Your task to perform on an android device: change notifications settings Image 0: 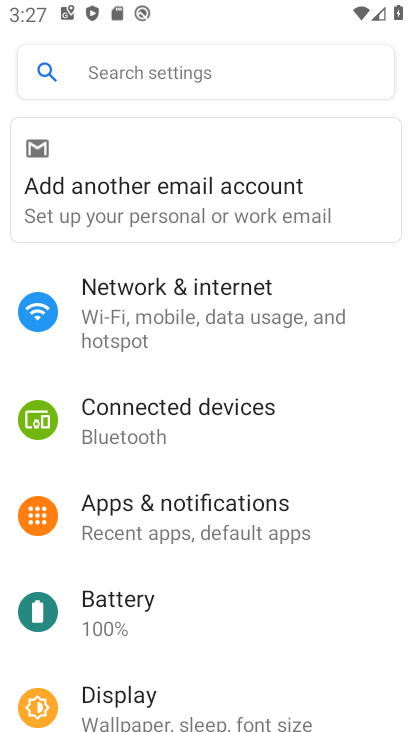
Step 0: click (251, 501)
Your task to perform on an android device: change notifications settings Image 1: 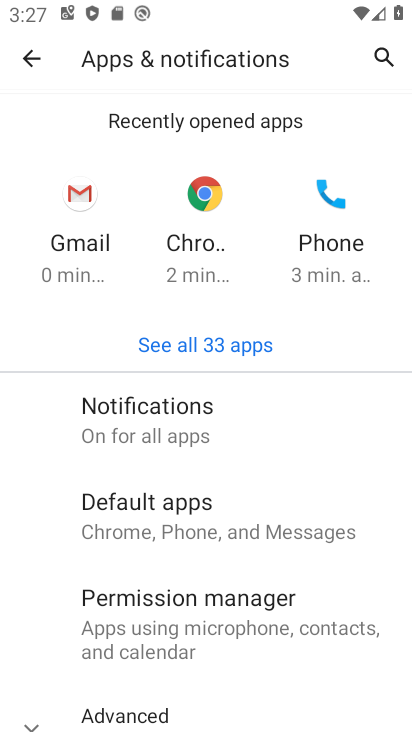
Step 1: drag from (302, 540) to (275, 174)
Your task to perform on an android device: change notifications settings Image 2: 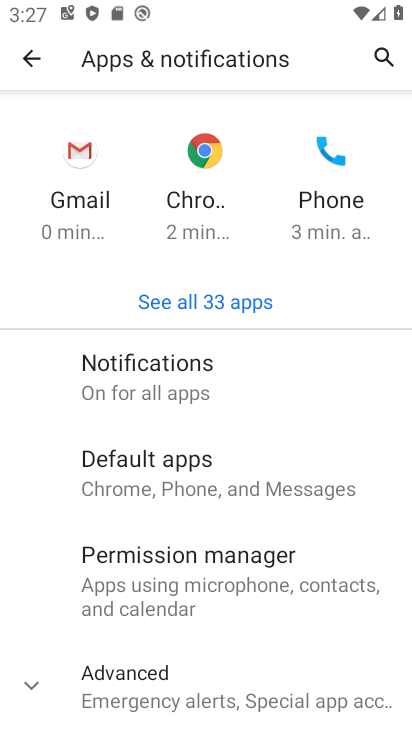
Step 2: click (33, 685)
Your task to perform on an android device: change notifications settings Image 3: 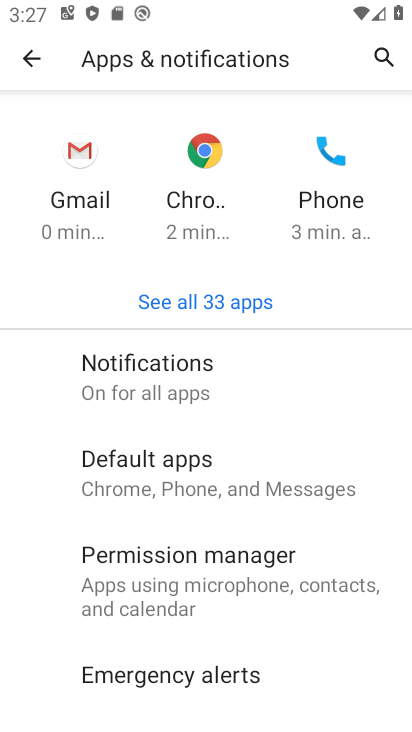
Step 3: drag from (38, 537) to (48, 239)
Your task to perform on an android device: change notifications settings Image 4: 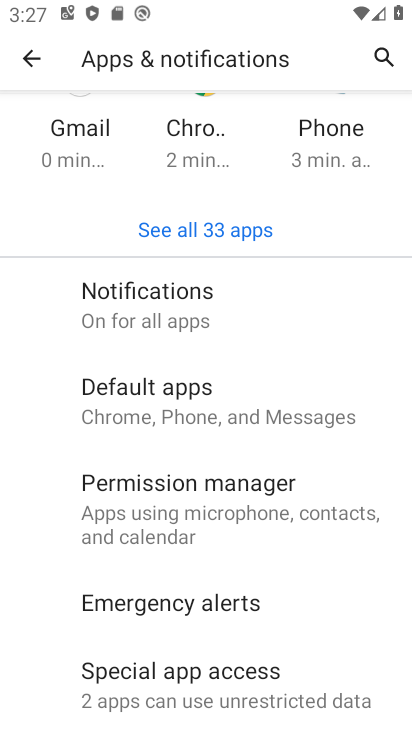
Step 4: click (194, 288)
Your task to perform on an android device: change notifications settings Image 5: 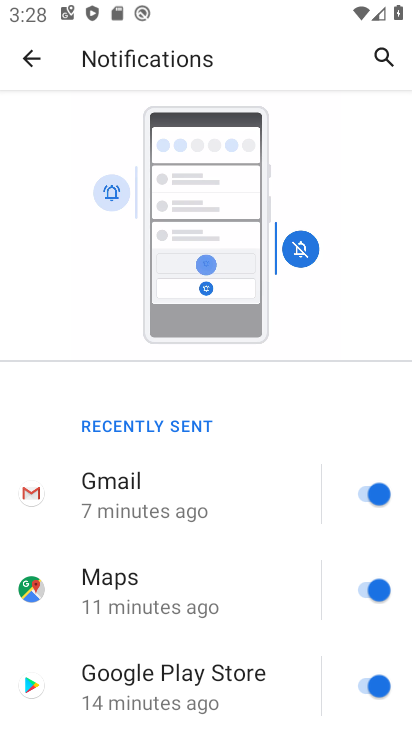
Step 5: drag from (190, 540) to (179, 187)
Your task to perform on an android device: change notifications settings Image 6: 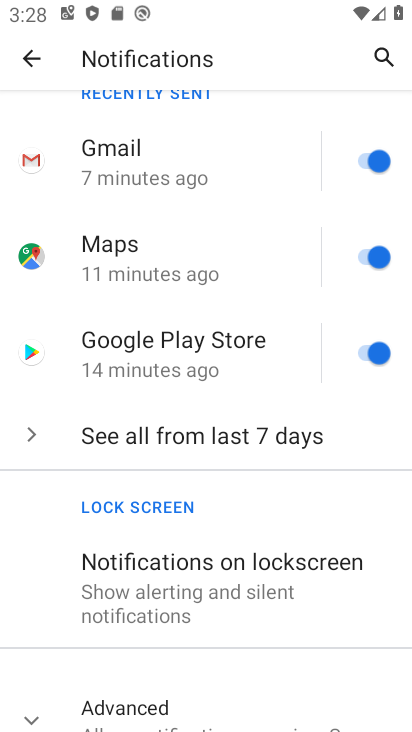
Step 6: drag from (215, 679) to (211, 284)
Your task to perform on an android device: change notifications settings Image 7: 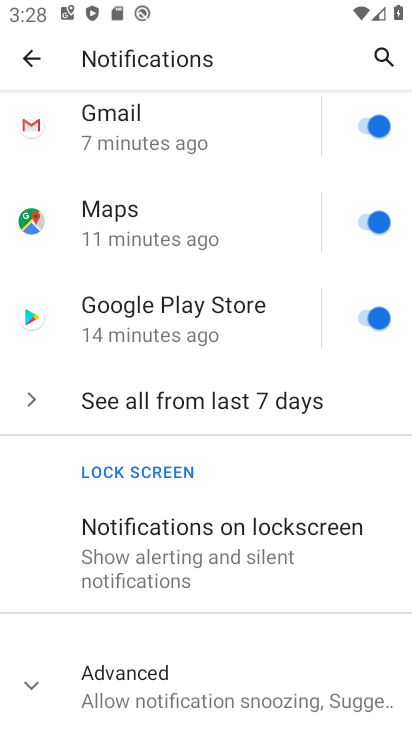
Step 7: click (363, 312)
Your task to perform on an android device: change notifications settings Image 8: 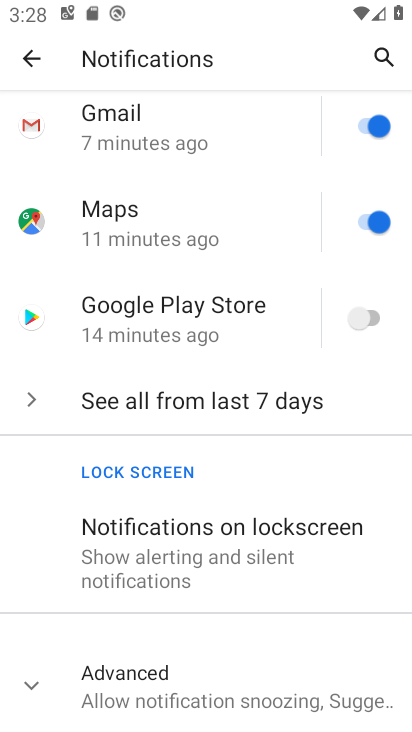
Step 8: task complete